Your task to perform on an android device: Open internet settings Image 0: 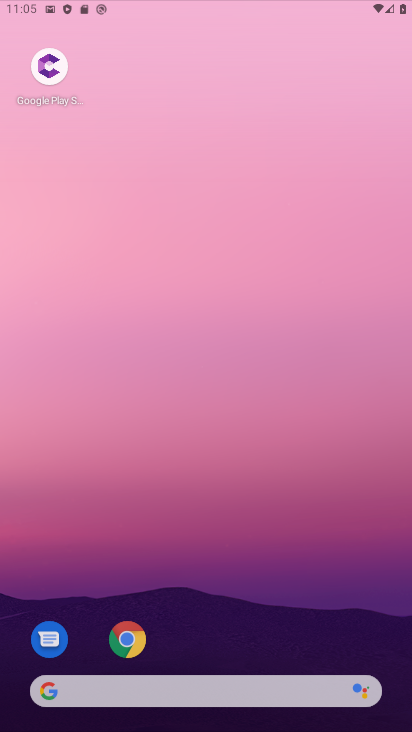
Step 0: click (199, 202)
Your task to perform on an android device: Open internet settings Image 1: 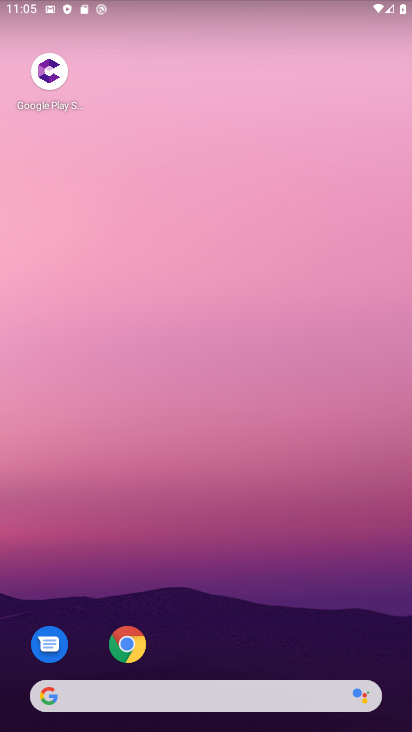
Step 1: drag from (193, 649) to (369, 45)
Your task to perform on an android device: Open internet settings Image 2: 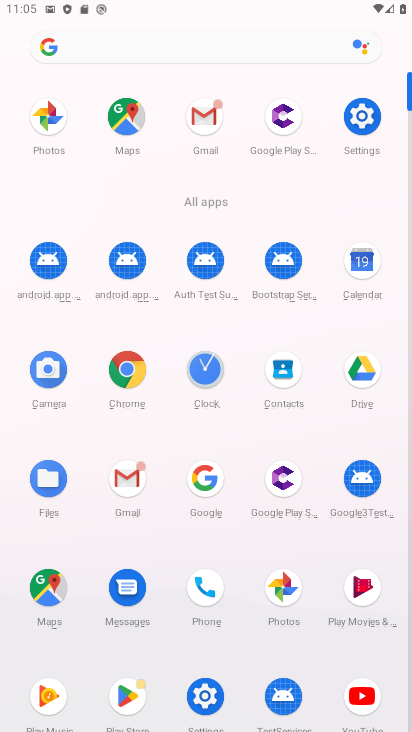
Step 2: click (198, 696)
Your task to perform on an android device: Open internet settings Image 3: 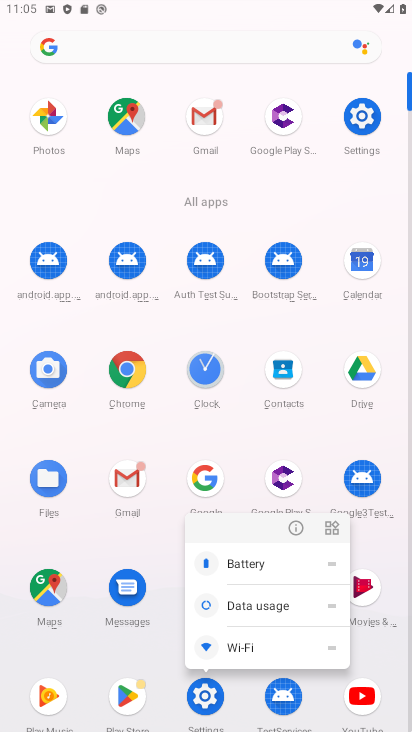
Step 3: click (295, 530)
Your task to perform on an android device: Open internet settings Image 4: 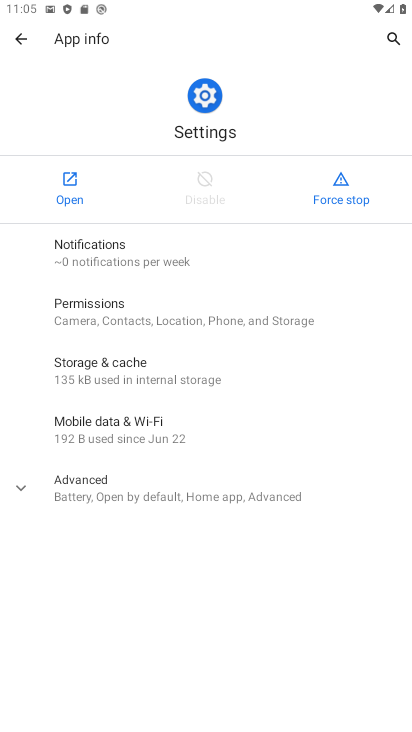
Step 4: click (90, 187)
Your task to perform on an android device: Open internet settings Image 5: 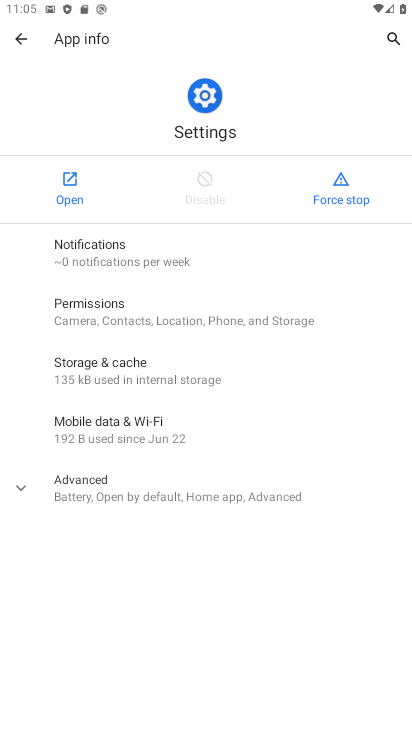
Step 5: click (90, 187)
Your task to perform on an android device: Open internet settings Image 6: 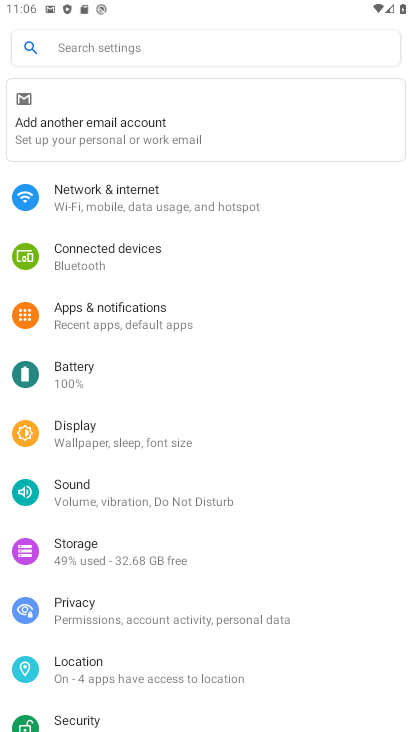
Step 6: click (188, 179)
Your task to perform on an android device: Open internet settings Image 7: 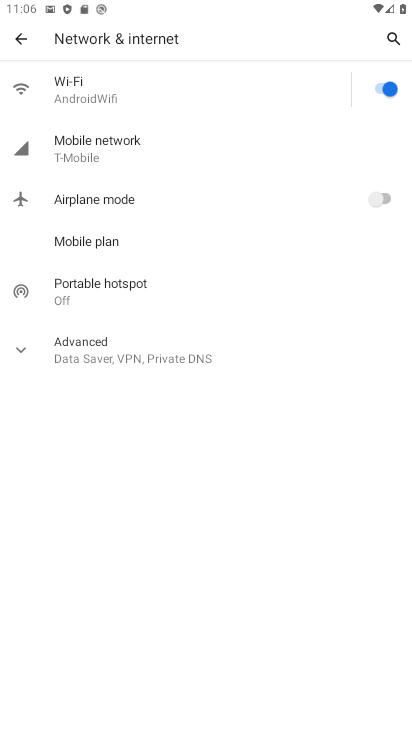
Step 7: task complete